Your task to perform on an android device: change your default location settings in chrome Image 0: 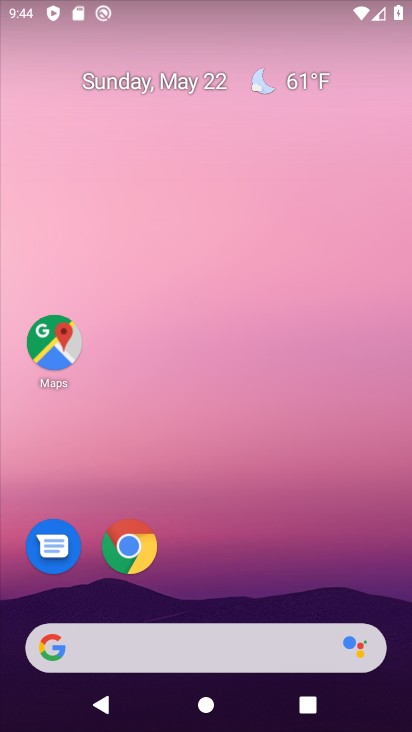
Step 0: drag from (164, 630) to (168, 22)
Your task to perform on an android device: change your default location settings in chrome Image 1: 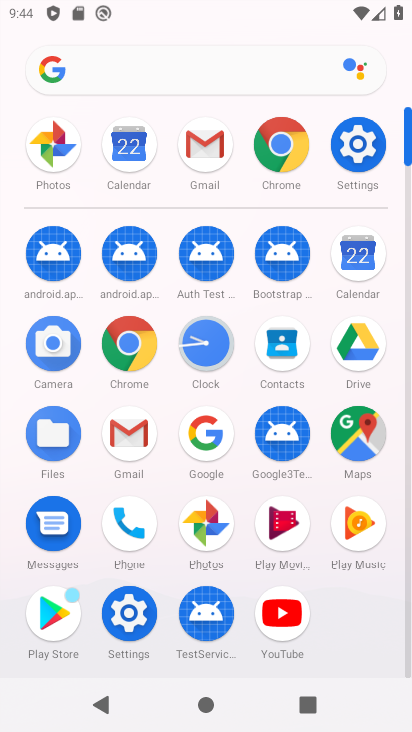
Step 1: click (285, 127)
Your task to perform on an android device: change your default location settings in chrome Image 2: 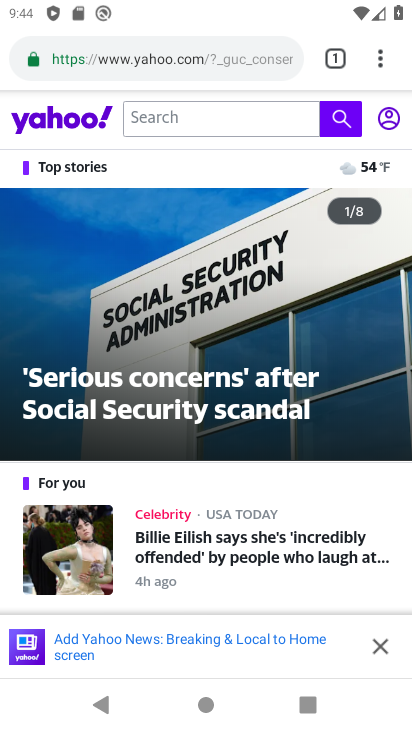
Step 2: drag from (388, 54) to (175, 566)
Your task to perform on an android device: change your default location settings in chrome Image 3: 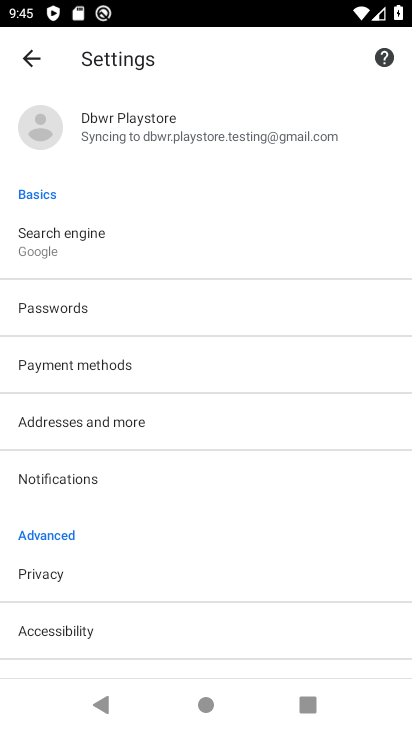
Step 3: drag from (128, 559) to (158, 64)
Your task to perform on an android device: change your default location settings in chrome Image 4: 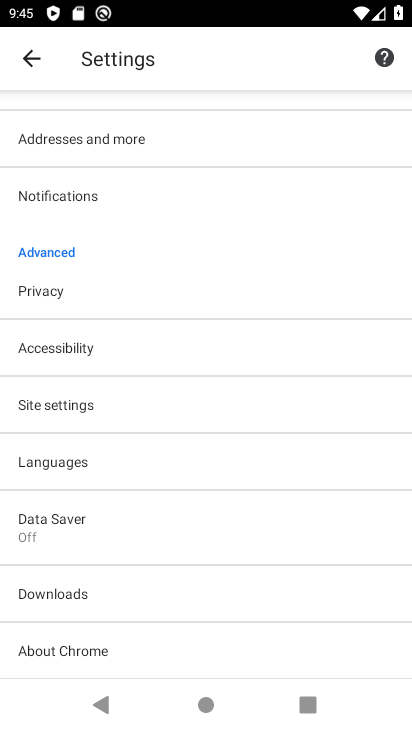
Step 4: click (83, 392)
Your task to perform on an android device: change your default location settings in chrome Image 5: 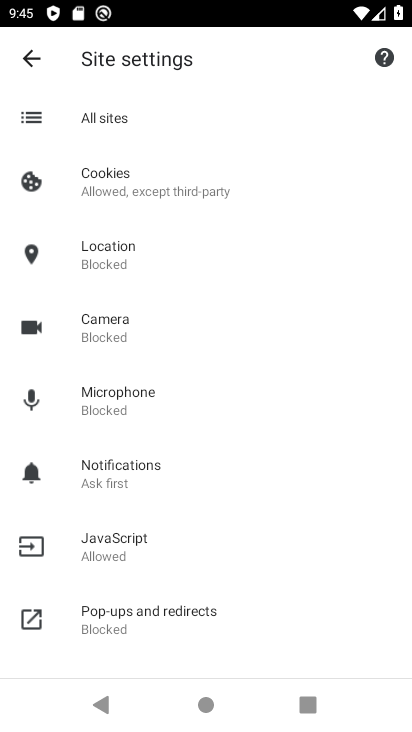
Step 5: click (133, 247)
Your task to perform on an android device: change your default location settings in chrome Image 6: 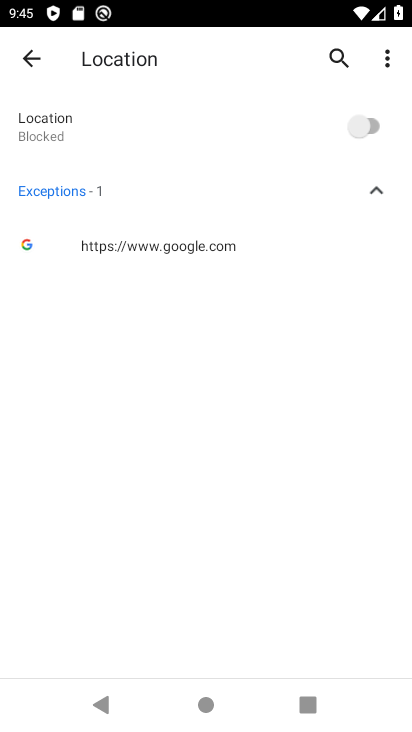
Step 6: click (366, 138)
Your task to perform on an android device: change your default location settings in chrome Image 7: 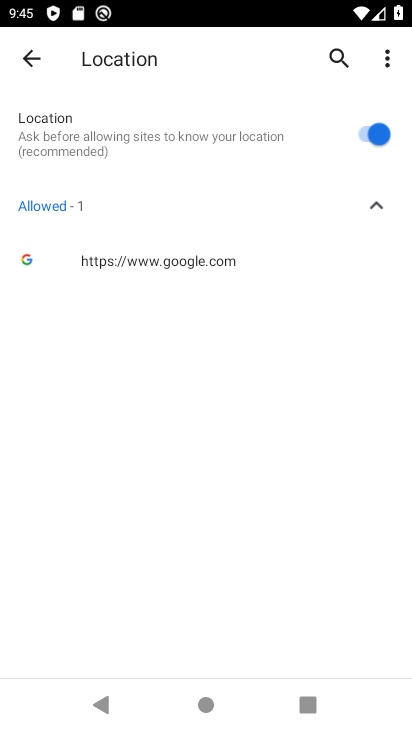
Step 7: task complete